Your task to perform on an android device: What's on the menu at Pizza Hut? Image 0: 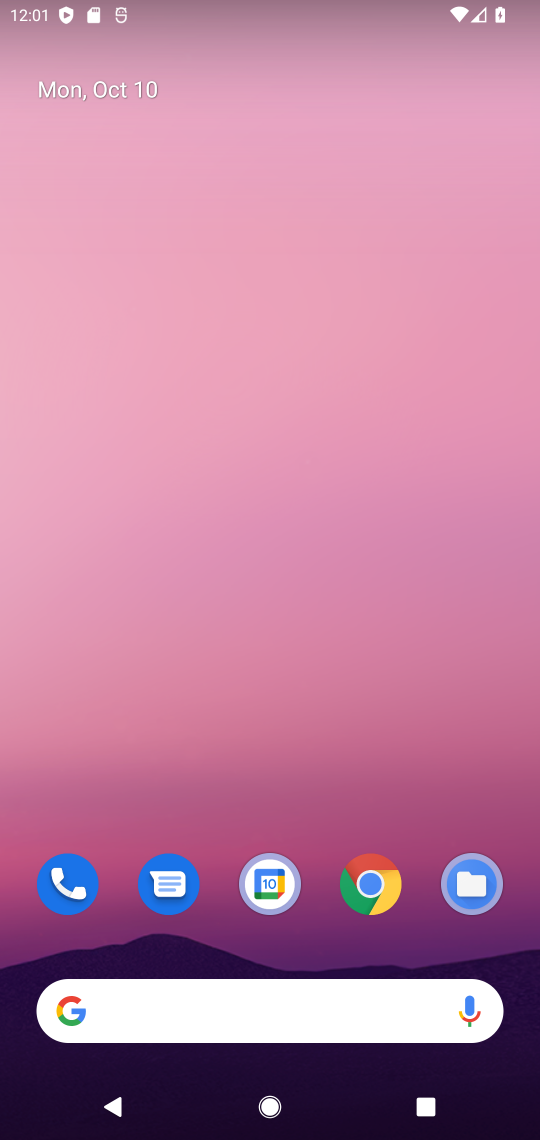
Step 0: click (370, 877)
Your task to perform on an android device: What's on the menu at Pizza Hut? Image 1: 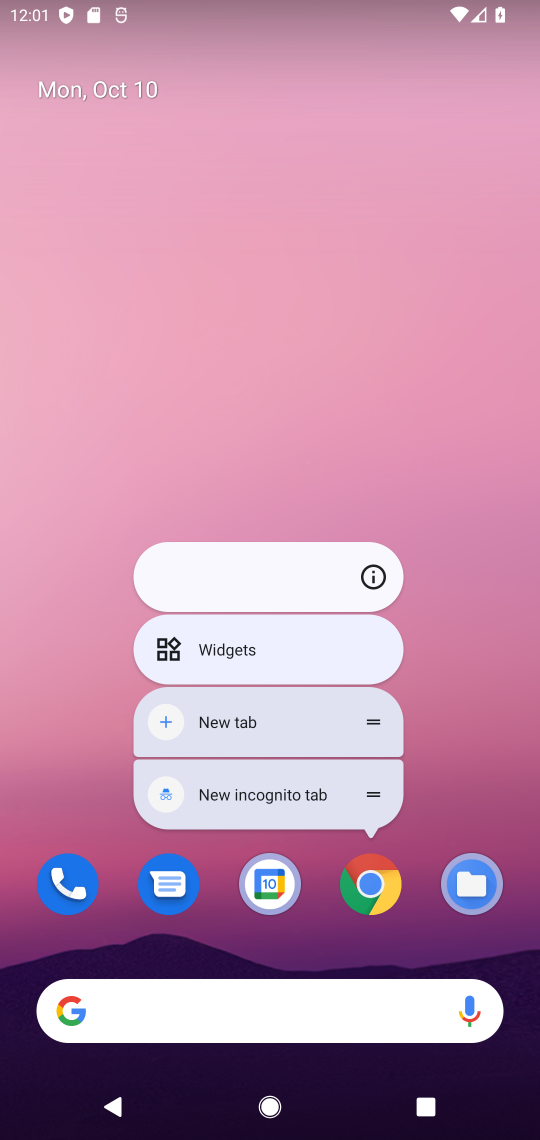
Step 1: click (379, 901)
Your task to perform on an android device: What's on the menu at Pizza Hut? Image 2: 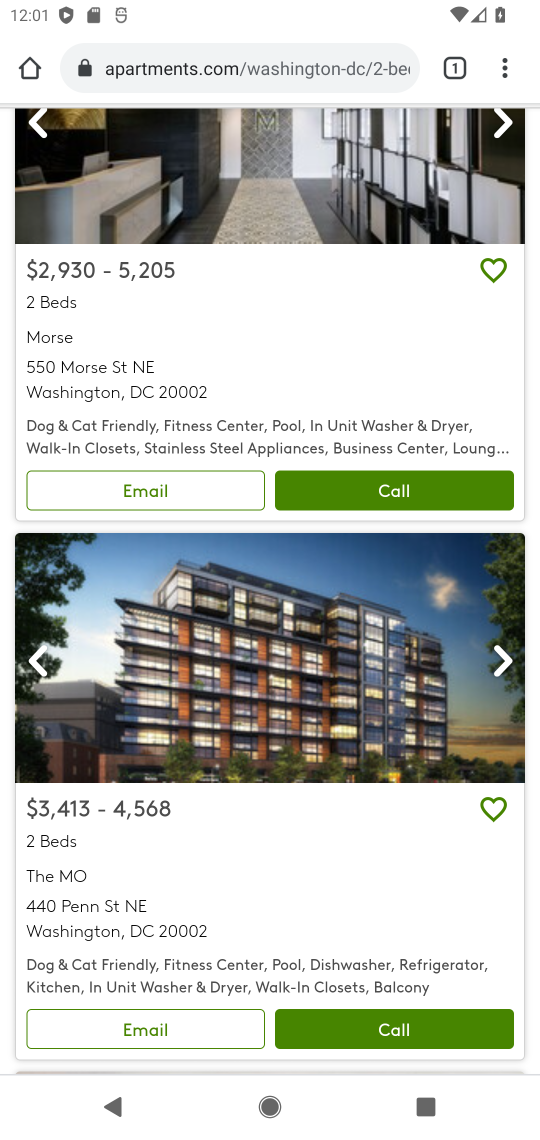
Step 2: click (325, 61)
Your task to perform on an android device: What's on the menu at Pizza Hut? Image 3: 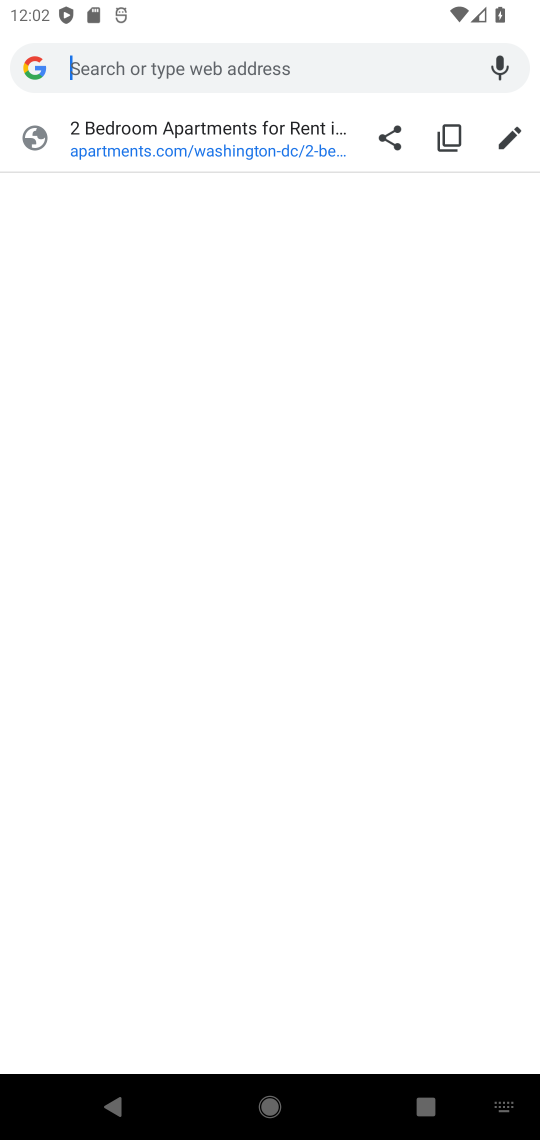
Step 3: type "Pizza Hut menu"
Your task to perform on an android device: What's on the menu at Pizza Hut? Image 4: 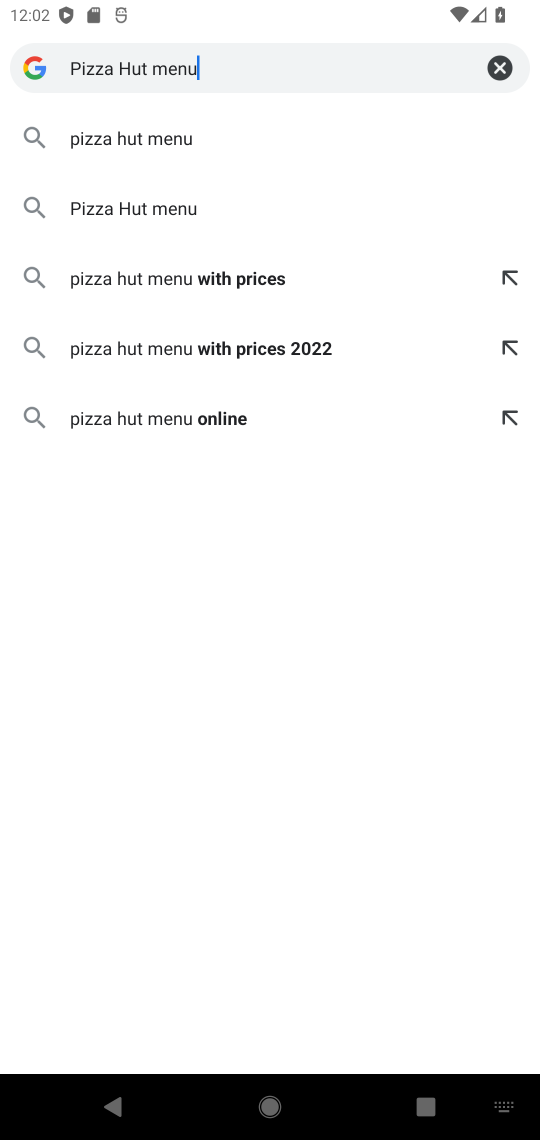
Step 4: press enter
Your task to perform on an android device: What's on the menu at Pizza Hut? Image 5: 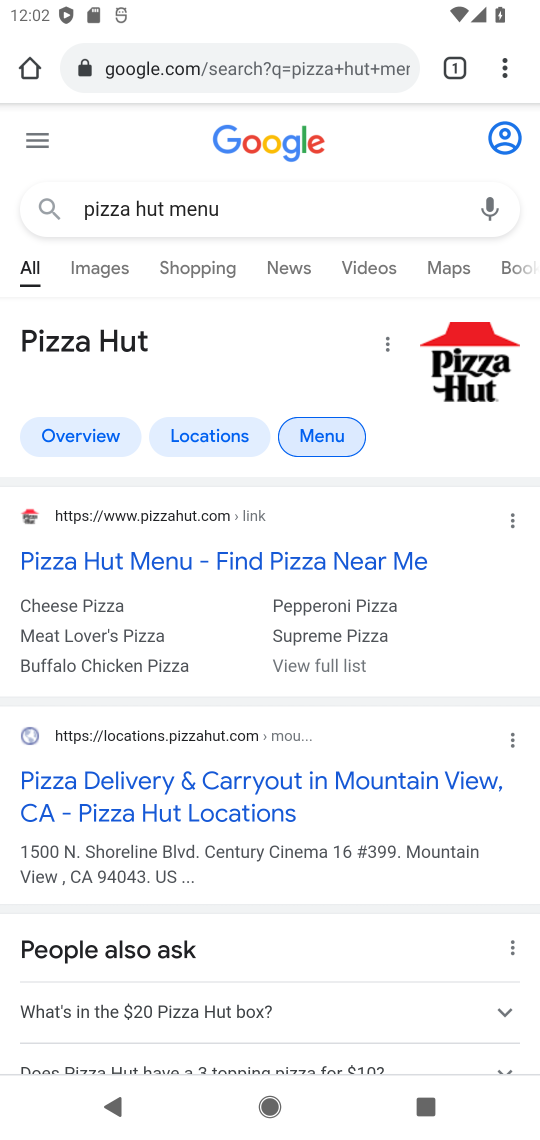
Step 5: click (219, 560)
Your task to perform on an android device: What's on the menu at Pizza Hut? Image 6: 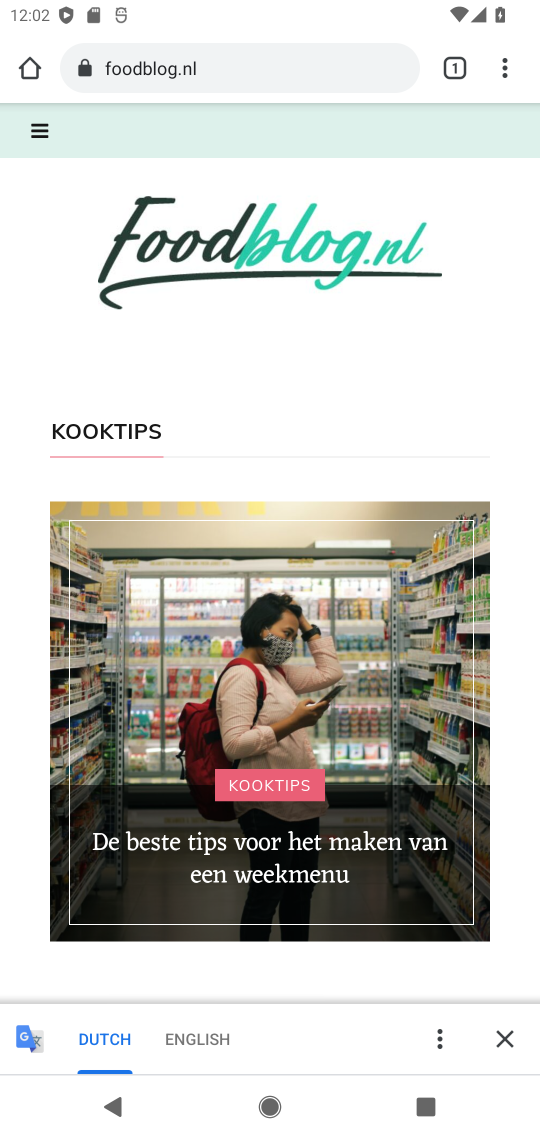
Step 6: drag from (324, 874) to (268, 396)
Your task to perform on an android device: What's on the menu at Pizza Hut? Image 7: 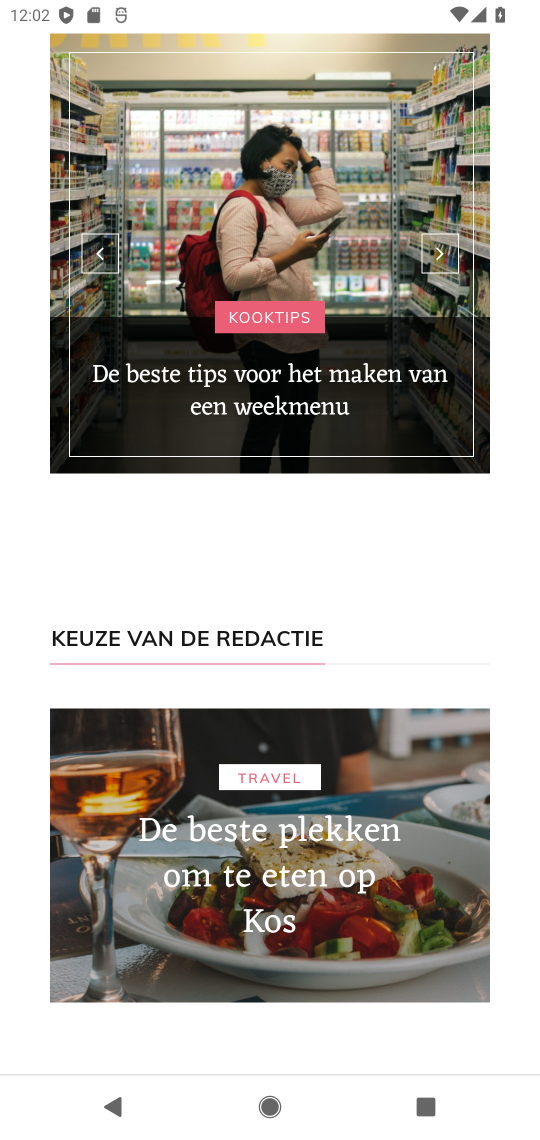
Step 7: click (200, 1043)
Your task to perform on an android device: What's on the menu at Pizza Hut? Image 8: 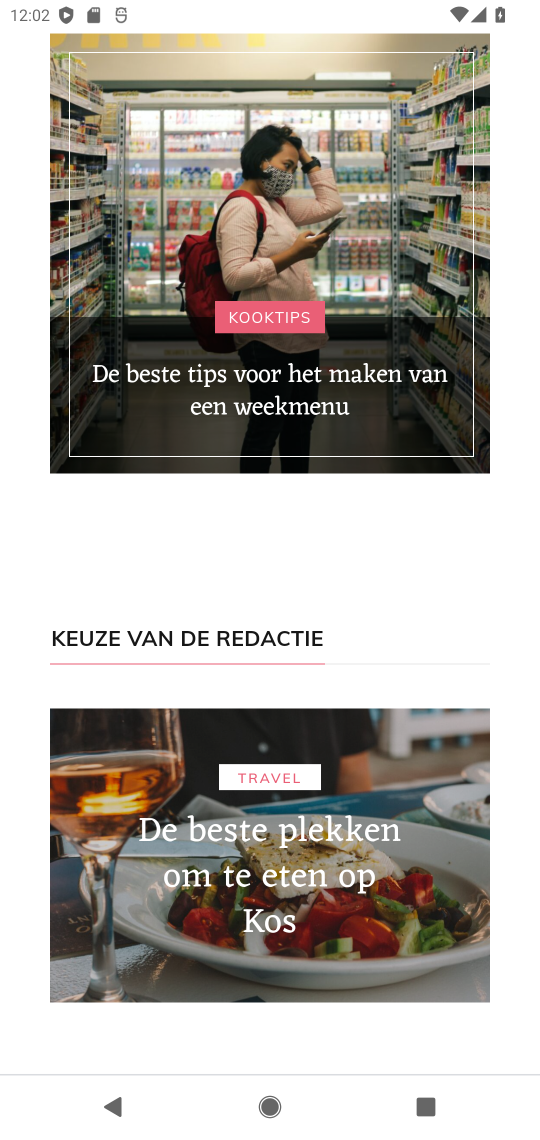
Step 8: drag from (264, 909) to (259, 560)
Your task to perform on an android device: What's on the menu at Pizza Hut? Image 9: 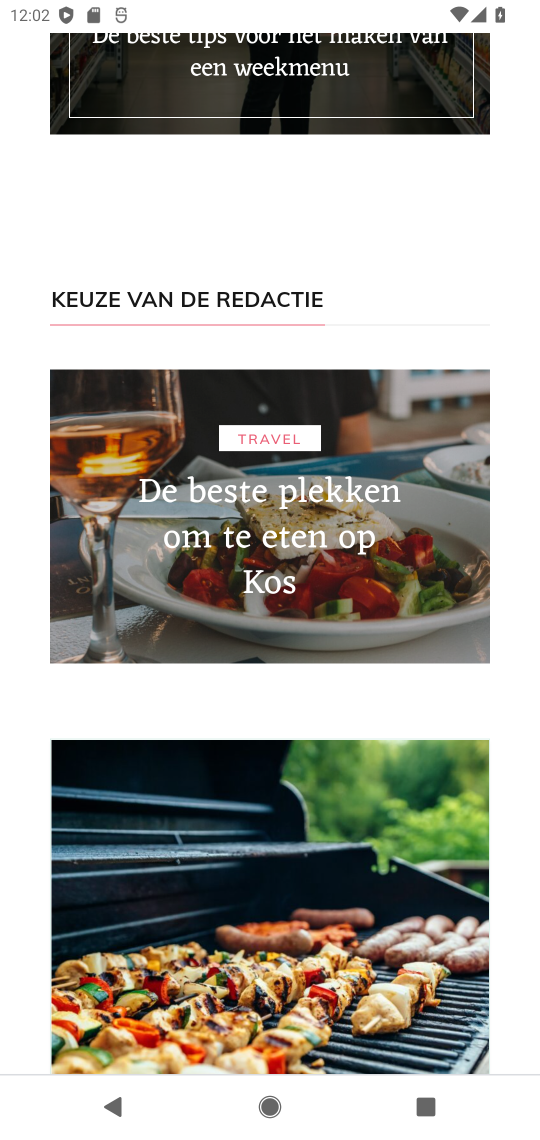
Step 9: press back button
Your task to perform on an android device: What's on the menu at Pizza Hut? Image 10: 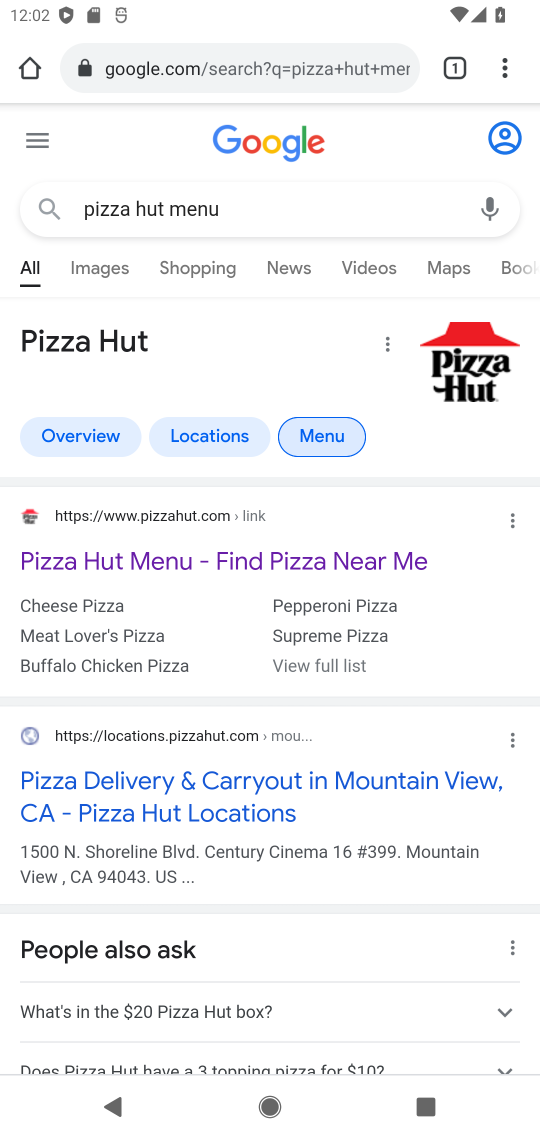
Step 10: drag from (281, 894) to (265, 458)
Your task to perform on an android device: What's on the menu at Pizza Hut? Image 11: 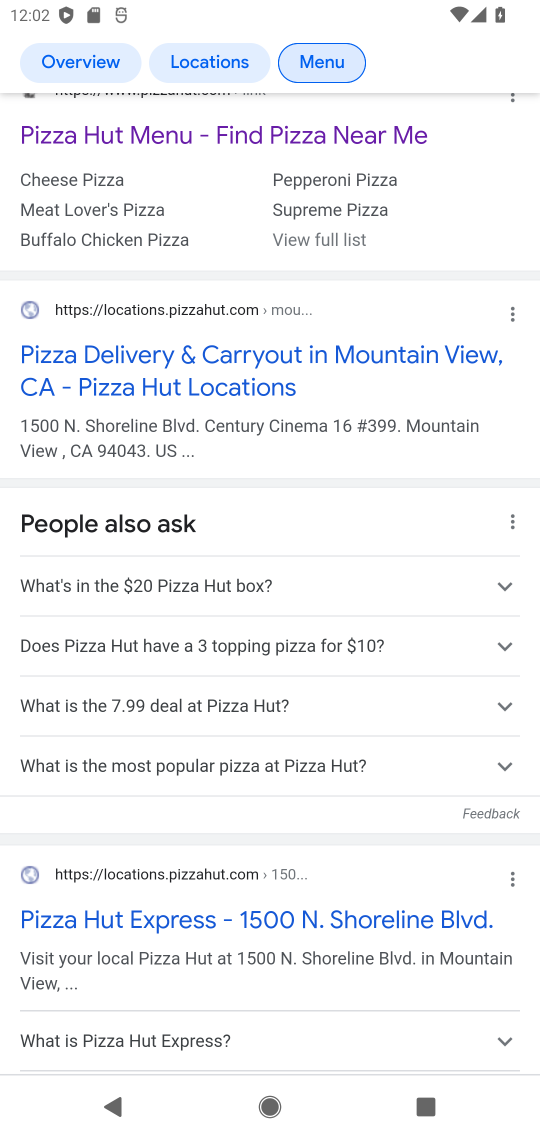
Step 11: drag from (345, 1008) to (274, 414)
Your task to perform on an android device: What's on the menu at Pizza Hut? Image 12: 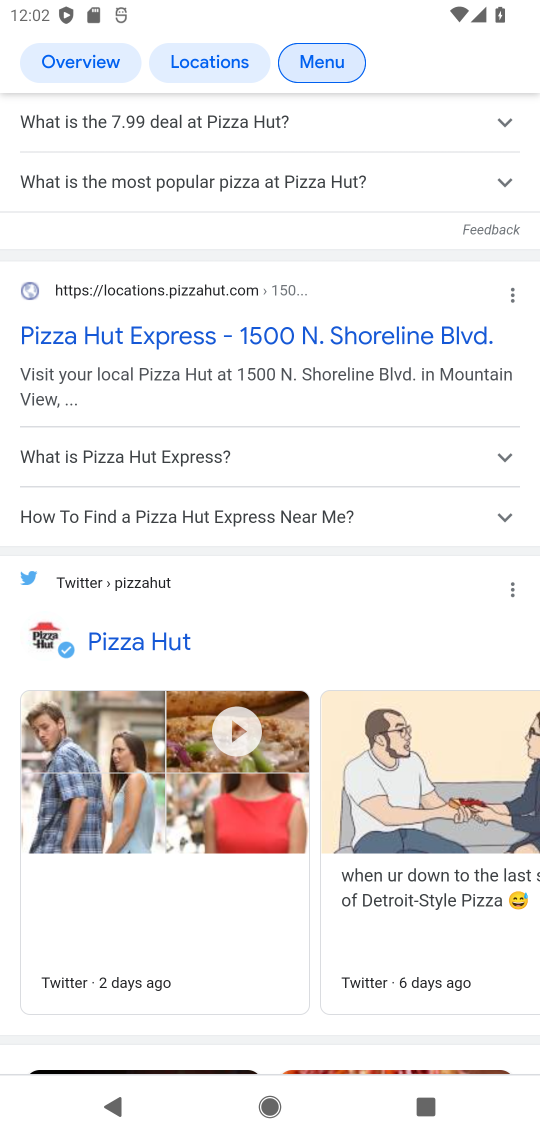
Step 12: drag from (304, 942) to (262, 547)
Your task to perform on an android device: What's on the menu at Pizza Hut? Image 13: 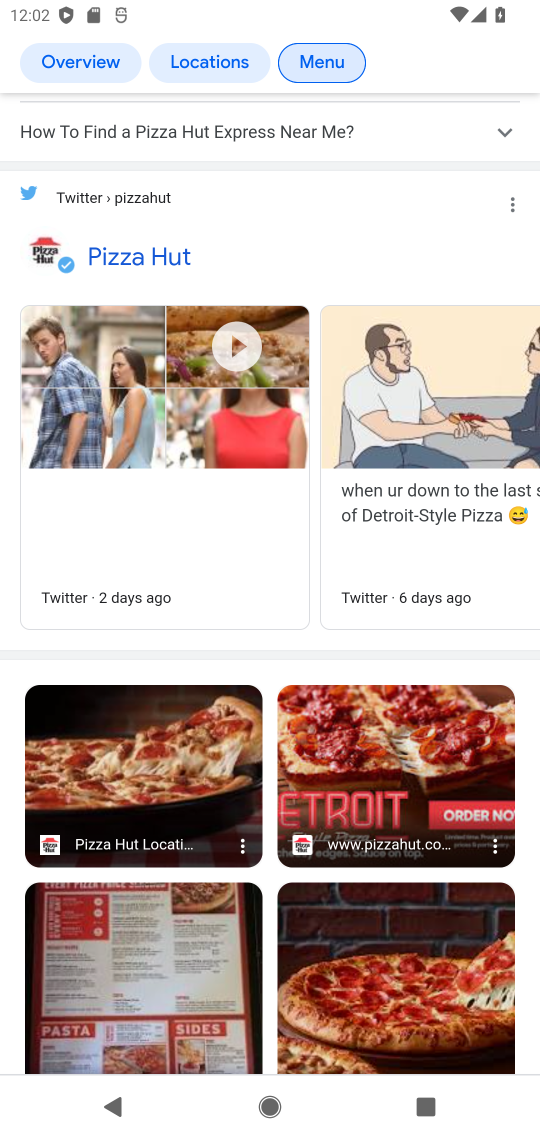
Step 13: drag from (330, 931) to (328, 386)
Your task to perform on an android device: What's on the menu at Pizza Hut? Image 14: 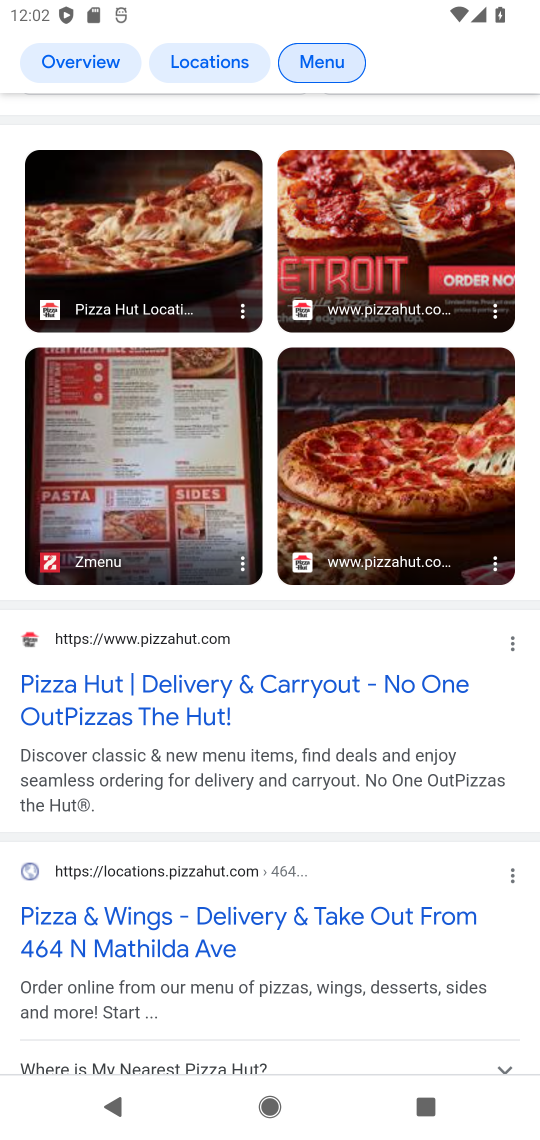
Step 14: click (181, 708)
Your task to perform on an android device: What's on the menu at Pizza Hut? Image 15: 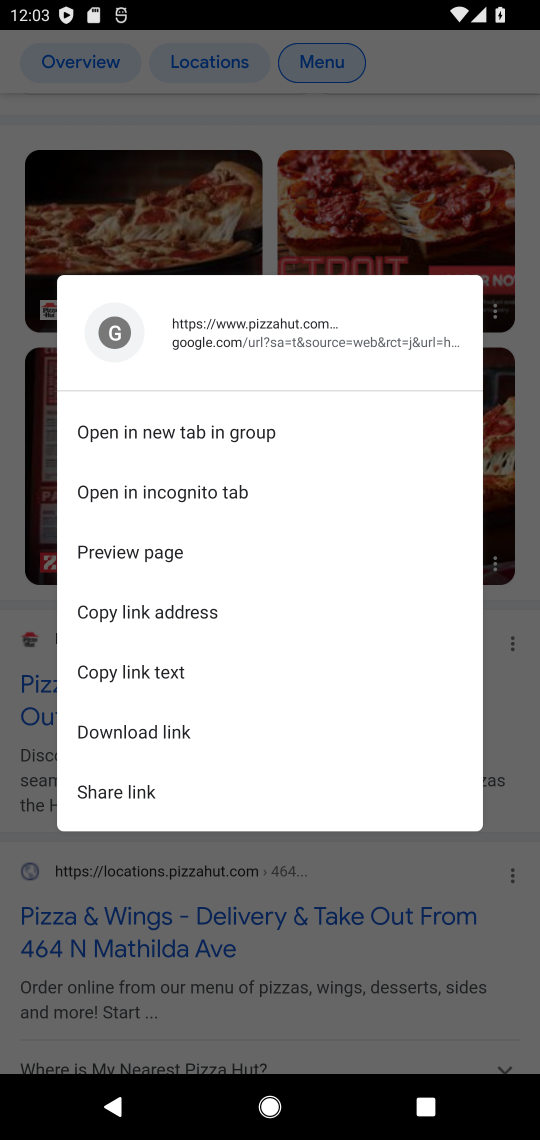
Step 15: click (151, 981)
Your task to perform on an android device: What's on the menu at Pizza Hut? Image 16: 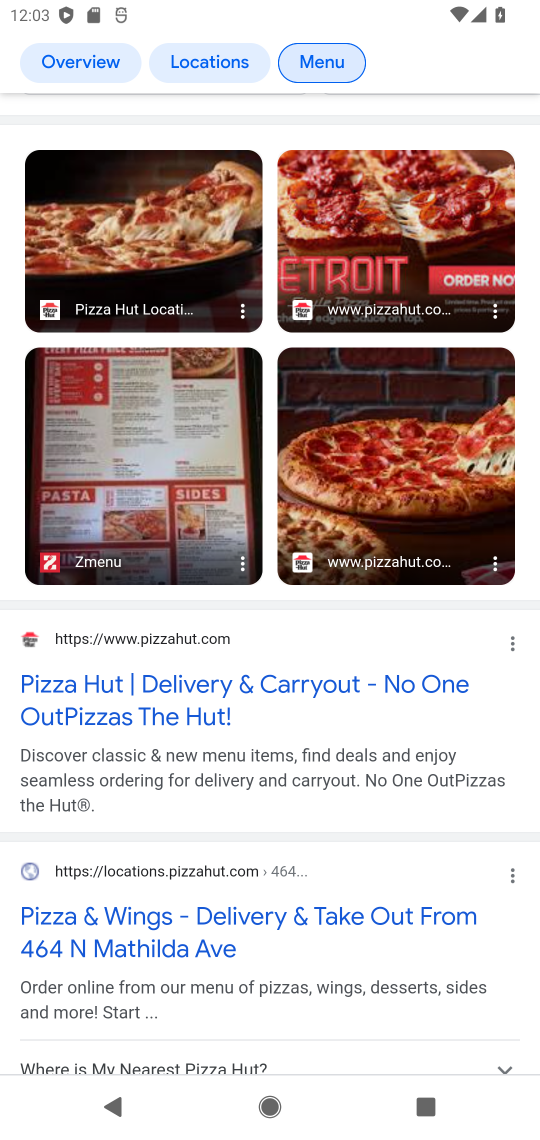
Step 16: click (148, 711)
Your task to perform on an android device: What's on the menu at Pizza Hut? Image 17: 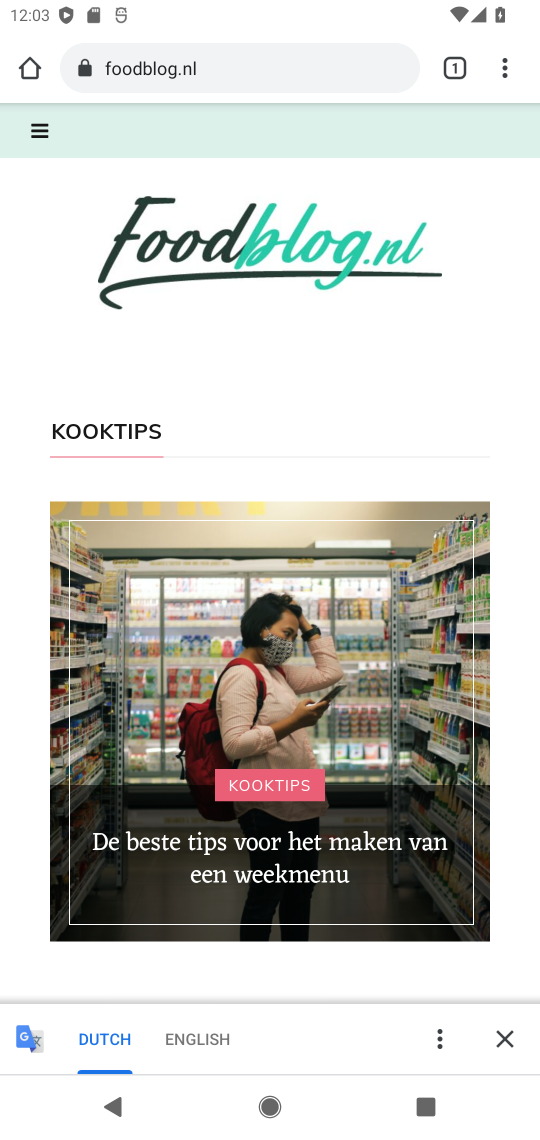
Step 17: drag from (274, 926) to (267, 721)
Your task to perform on an android device: What's on the menu at Pizza Hut? Image 18: 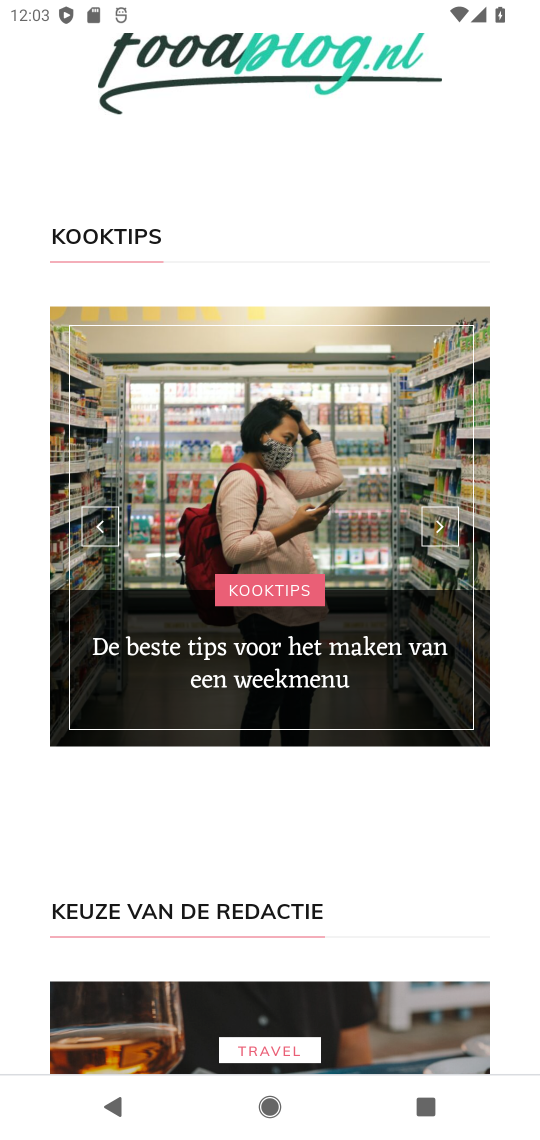
Step 18: press back button
Your task to perform on an android device: What's on the menu at Pizza Hut? Image 19: 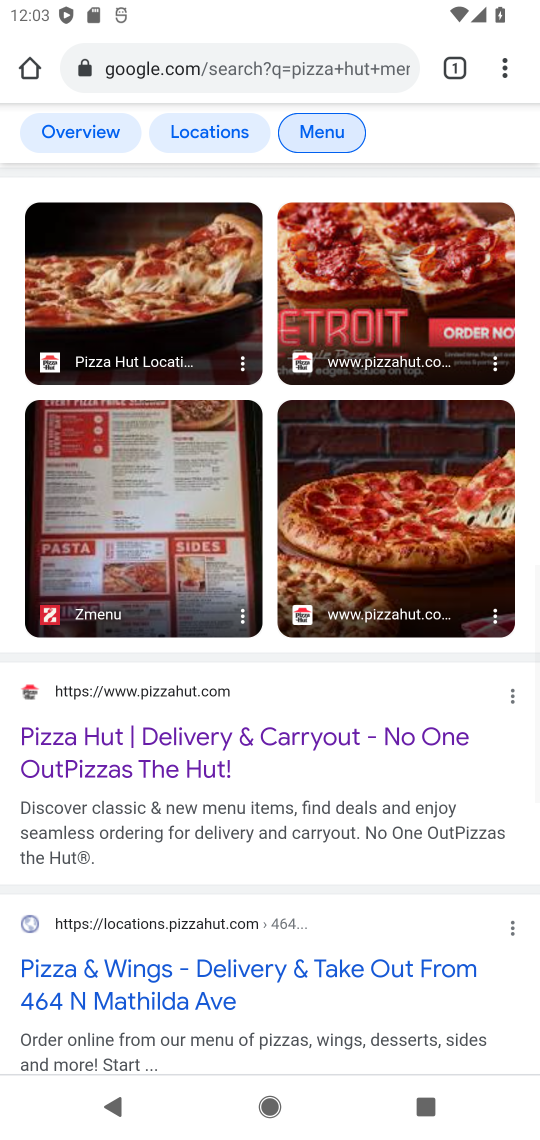
Step 19: drag from (381, 557) to (387, 886)
Your task to perform on an android device: What's on the menu at Pizza Hut? Image 20: 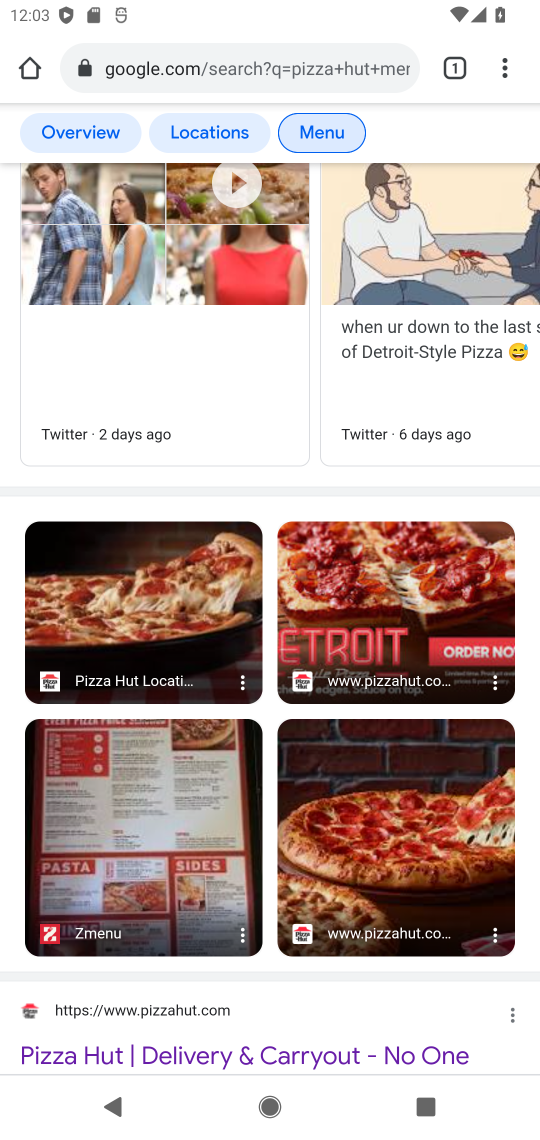
Step 20: drag from (300, 442) to (300, 898)
Your task to perform on an android device: What's on the menu at Pizza Hut? Image 21: 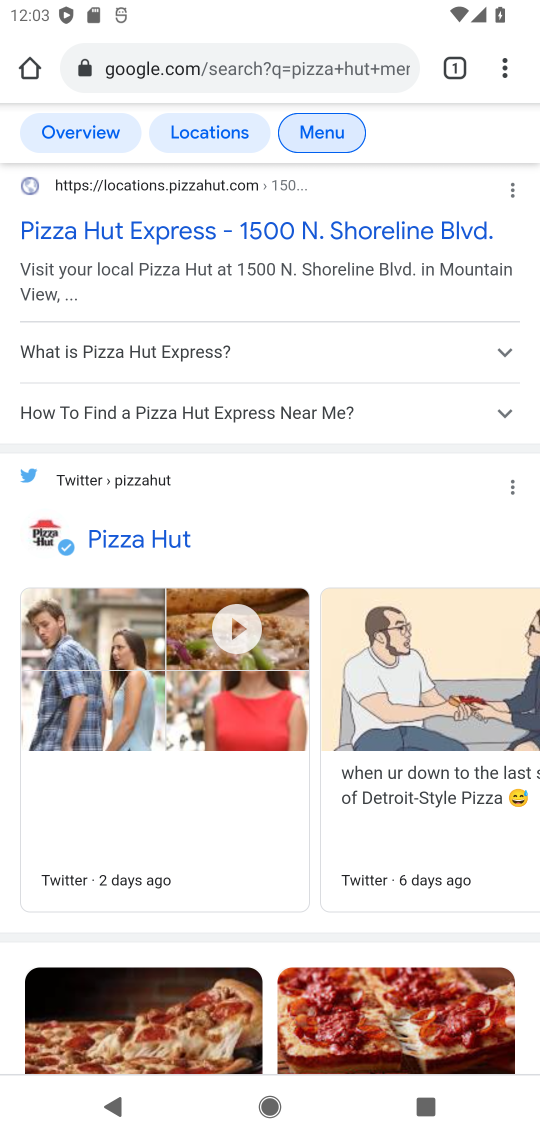
Step 21: drag from (368, 399) to (373, 777)
Your task to perform on an android device: What's on the menu at Pizza Hut? Image 22: 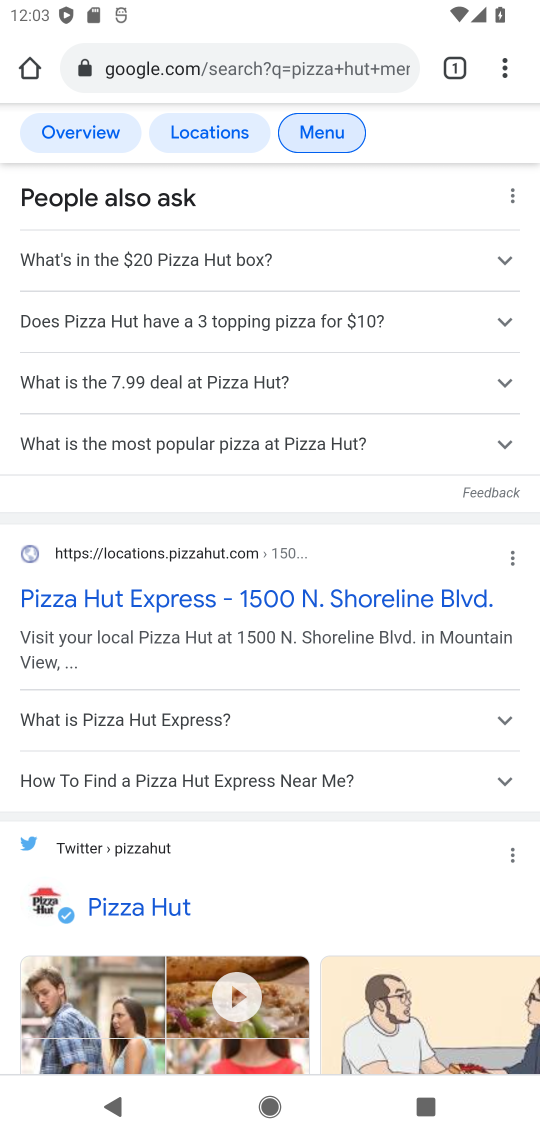
Step 22: drag from (407, 423) to (358, 902)
Your task to perform on an android device: What's on the menu at Pizza Hut? Image 23: 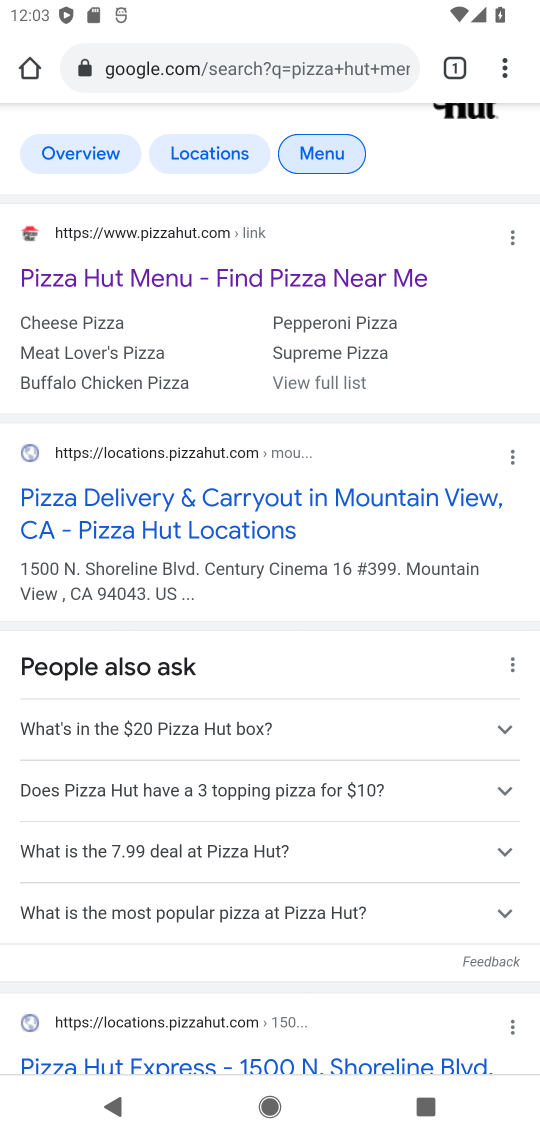
Step 23: click (344, 378)
Your task to perform on an android device: What's on the menu at Pizza Hut? Image 24: 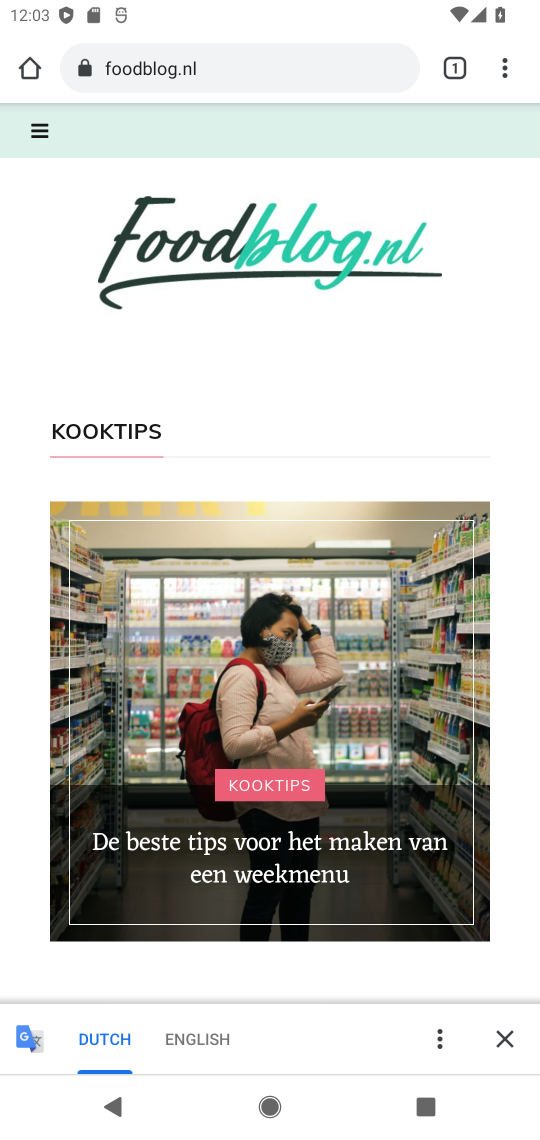
Step 24: task complete